Your task to perform on an android device: turn vacation reply on in the gmail app Image 0: 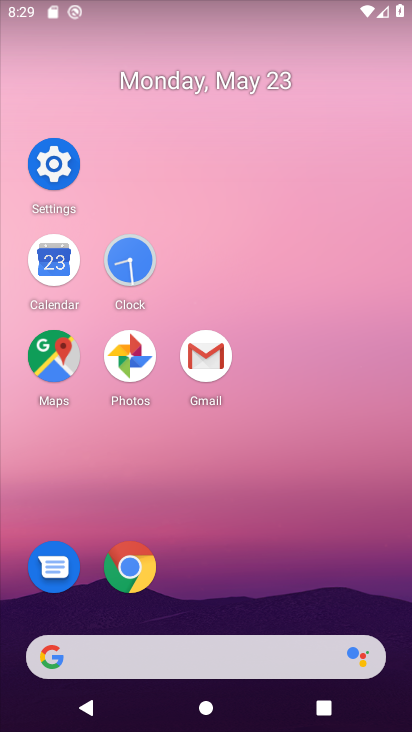
Step 0: click (211, 360)
Your task to perform on an android device: turn vacation reply on in the gmail app Image 1: 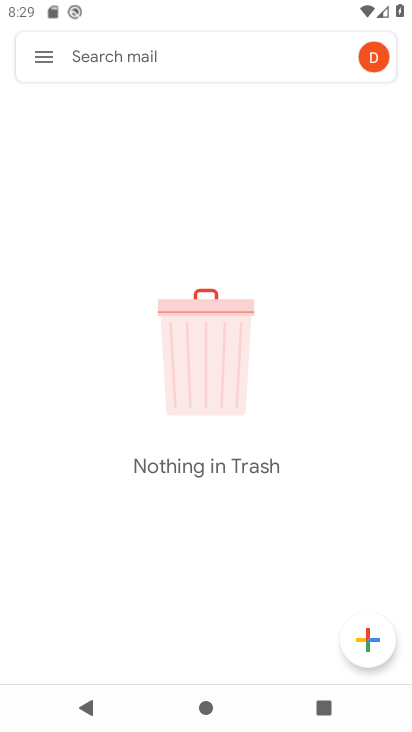
Step 1: click (18, 66)
Your task to perform on an android device: turn vacation reply on in the gmail app Image 2: 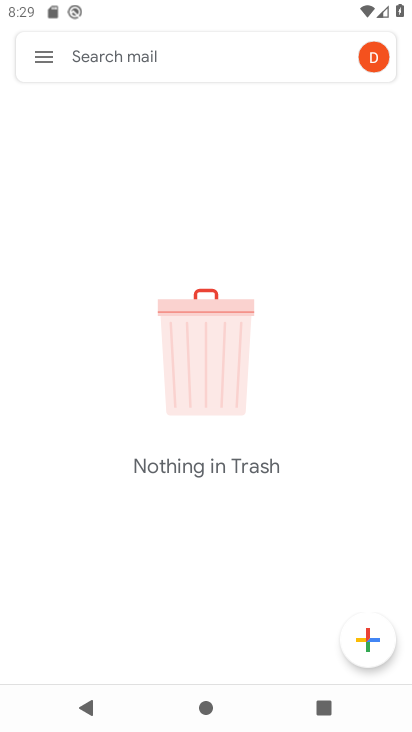
Step 2: click (57, 66)
Your task to perform on an android device: turn vacation reply on in the gmail app Image 3: 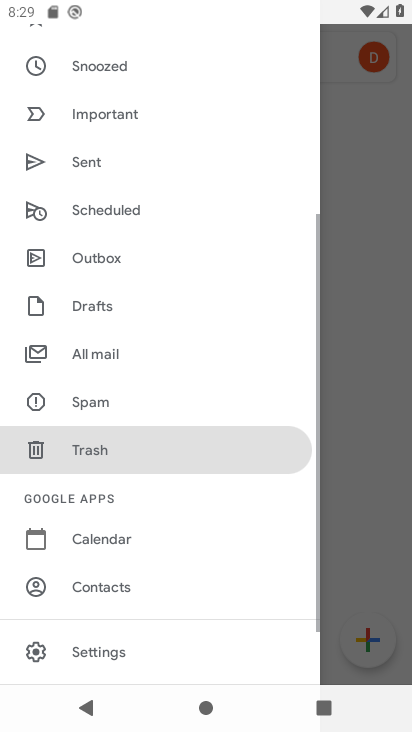
Step 3: drag from (235, 518) to (230, 71)
Your task to perform on an android device: turn vacation reply on in the gmail app Image 4: 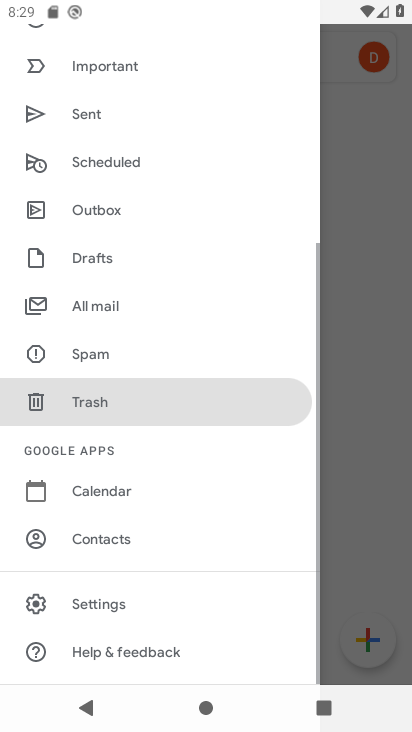
Step 4: click (147, 592)
Your task to perform on an android device: turn vacation reply on in the gmail app Image 5: 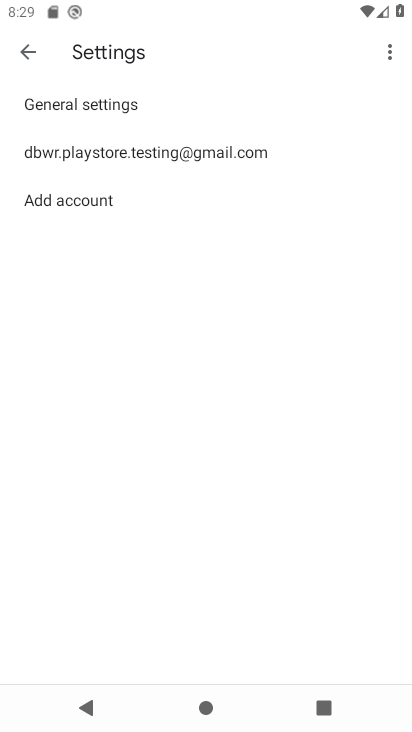
Step 5: click (208, 161)
Your task to perform on an android device: turn vacation reply on in the gmail app Image 6: 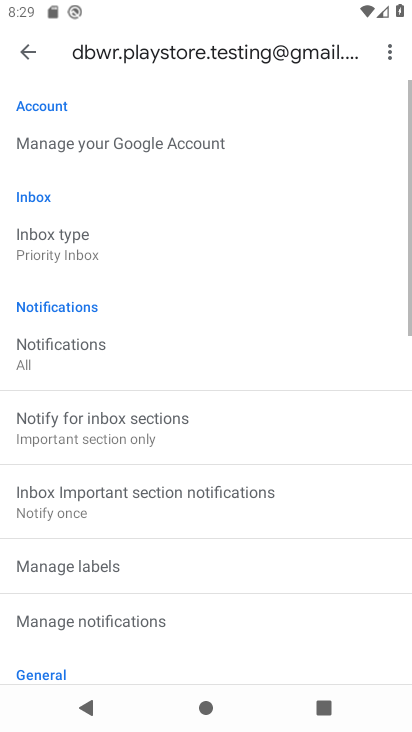
Step 6: drag from (259, 505) to (261, 125)
Your task to perform on an android device: turn vacation reply on in the gmail app Image 7: 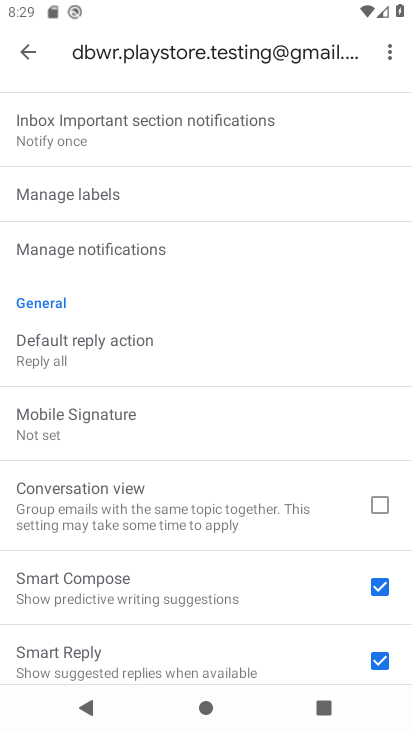
Step 7: drag from (235, 511) to (270, 156)
Your task to perform on an android device: turn vacation reply on in the gmail app Image 8: 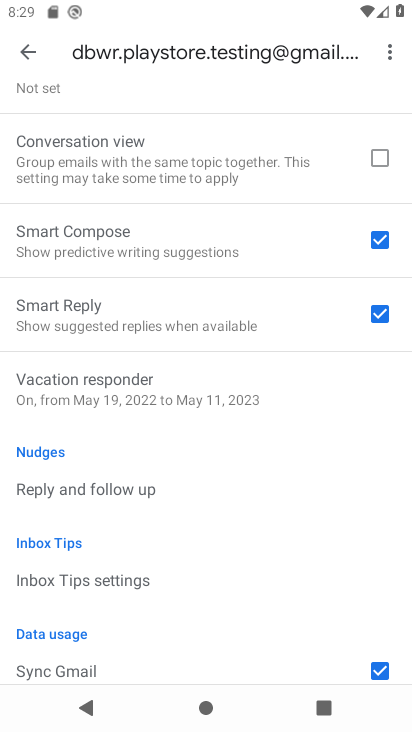
Step 8: click (259, 386)
Your task to perform on an android device: turn vacation reply on in the gmail app Image 9: 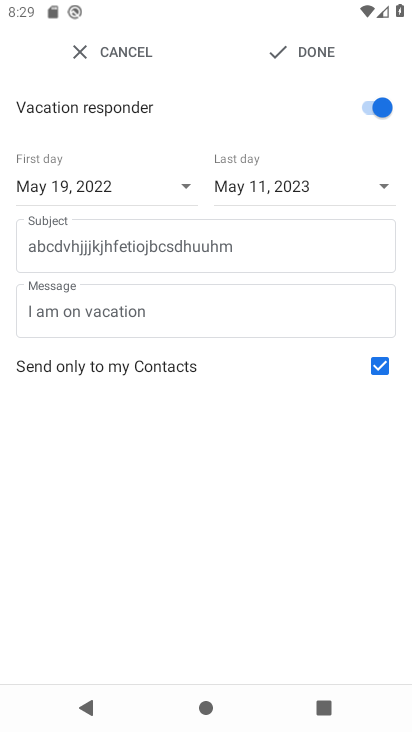
Step 9: click (327, 56)
Your task to perform on an android device: turn vacation reply on in the gmail app Image 10: 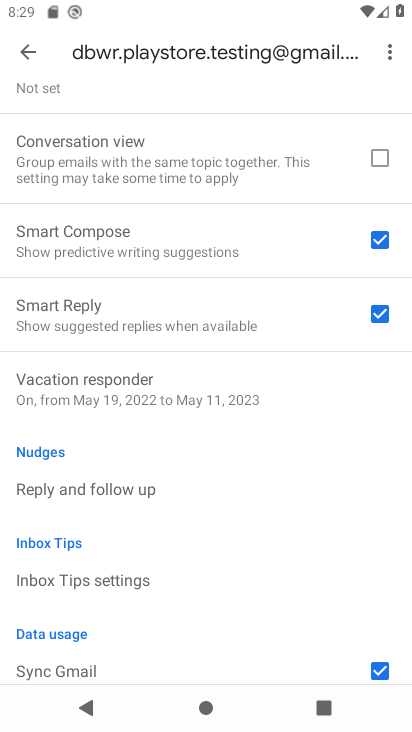
Step 10: task complete